Your task to perform on an android device: remove spam from my inbox in the gmail app Image 0: 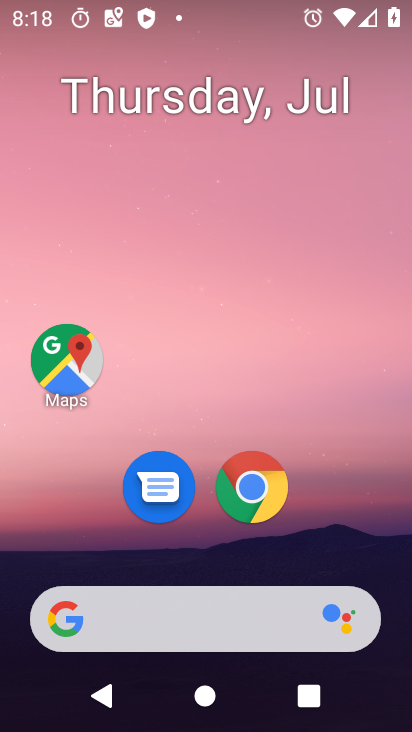
Step 0: drag from (326, 580) to (378, 267)
Your task to perform on an android device: remove spam from my inbox in the gmail app Image 1: 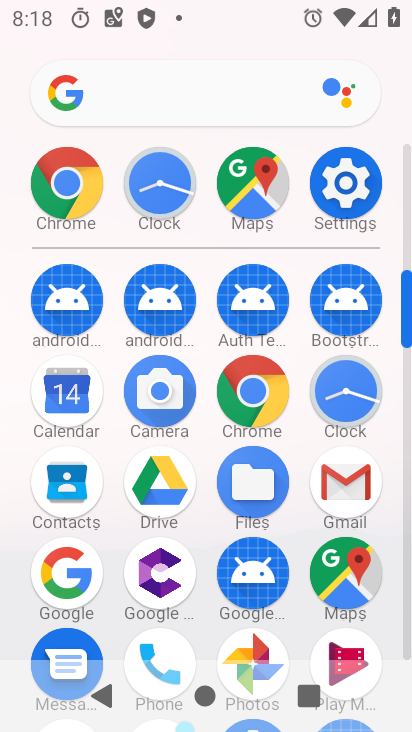
Step 1: click (338, 491)
Your task to perform on an android device: remove spam from my inbox in the gmail app Image 2: 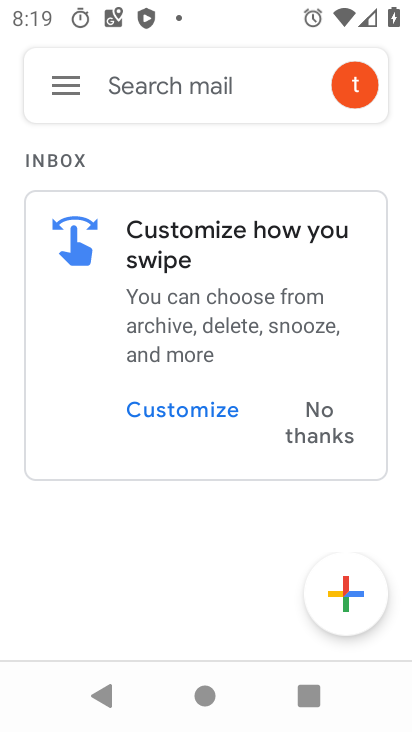
Step 2: click (62, 100)
Your task to perform on an android device: remove spam from my inbox in the gmail app Image 3: 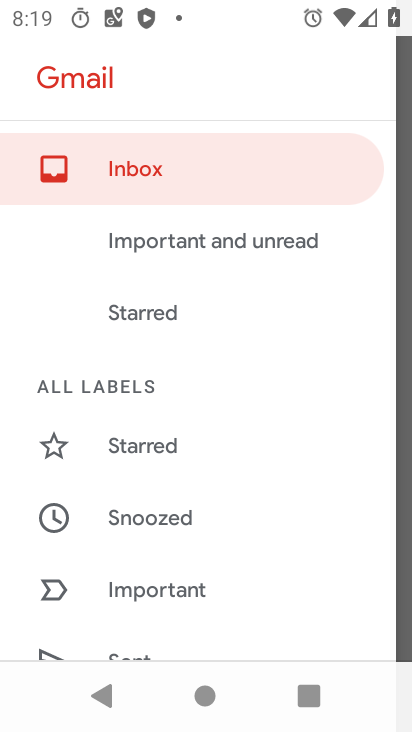
Step 3: click (88, 173)
Your task to perform on an android device: remove spam from my inbox in the gmail app Image 4: 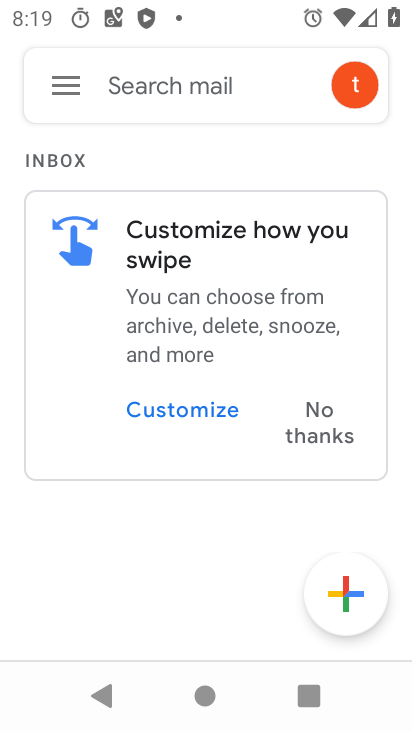
Step 4: click (88, 173)
Your task to perform on an android device: remove spam from my inbox in the gmail app Image 5: 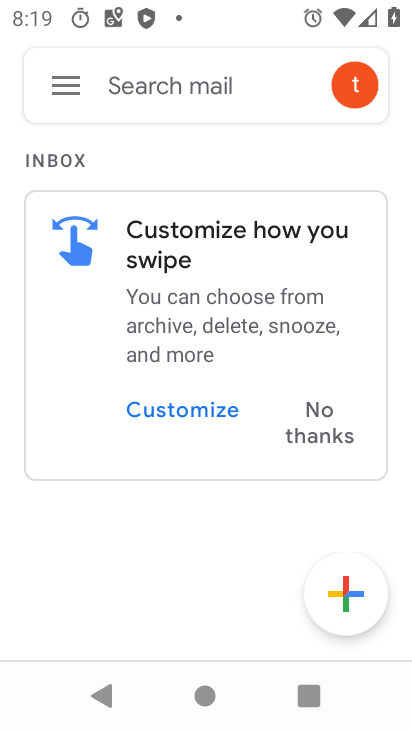
Step 5: click (88, 173)
Your task to perform on an android device: remove spam from my inbox in the gmail app Image 6: 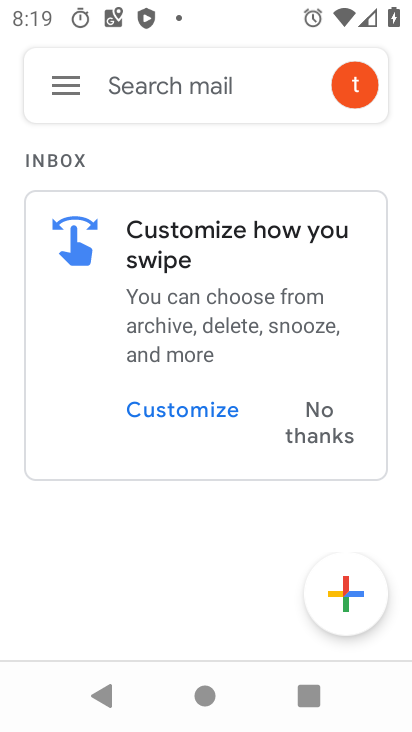
Step 6: task complete